Your task to perform on an android device: Open network settings Image 0: 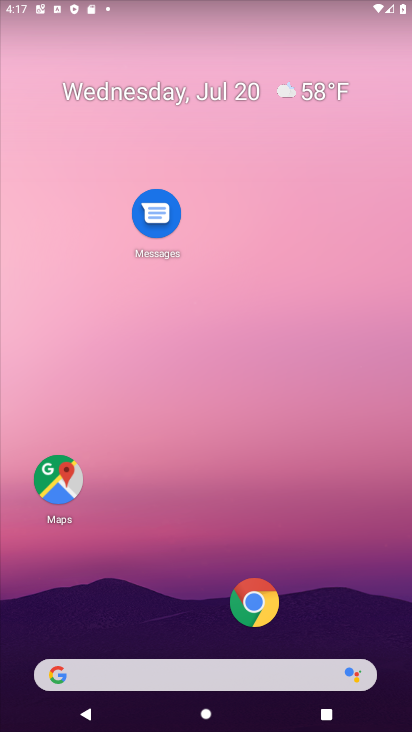
Step 0: click (186, 669)
Your task to perform on an android device: Open network settings Image 1: 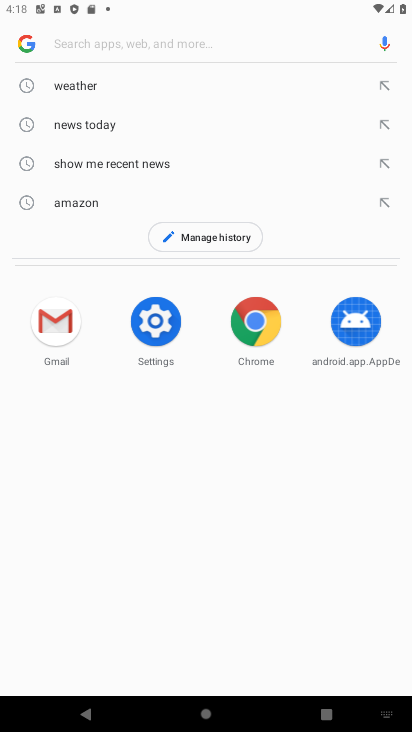
Step 1: press home button
Your task to perform on an android device: Open network settings Image 2: 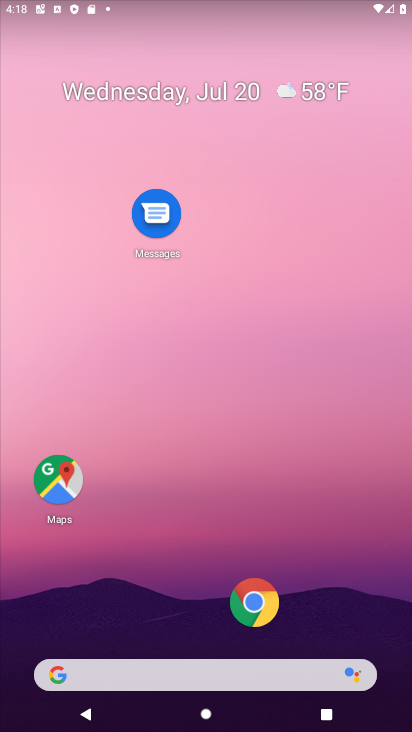
Step 2: drag from (269, 274) to (234, 97)
Your task to perform on an android device: Open network settings Image 3: 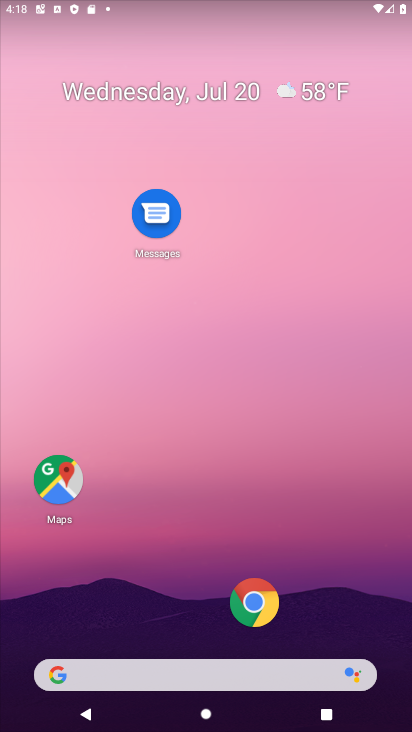
Step 3: drag from (241, 279) to (243, 118)
Your task to perform on an android device: Open network settings Image 4: 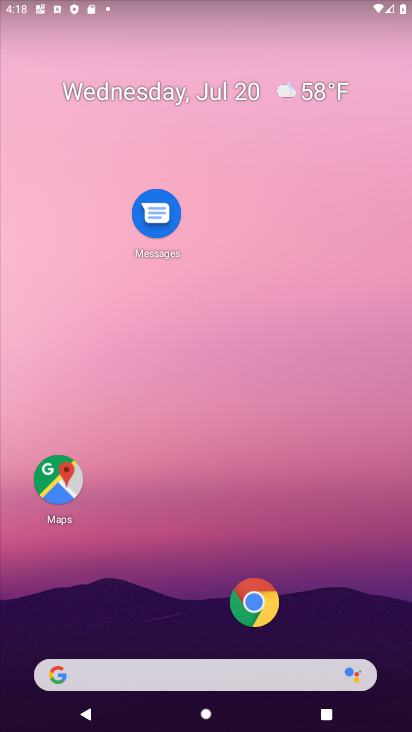
Step 4: drag from (232, 182) to (292, 218)
Your task to perform on an android device: Open network settings Image 5: 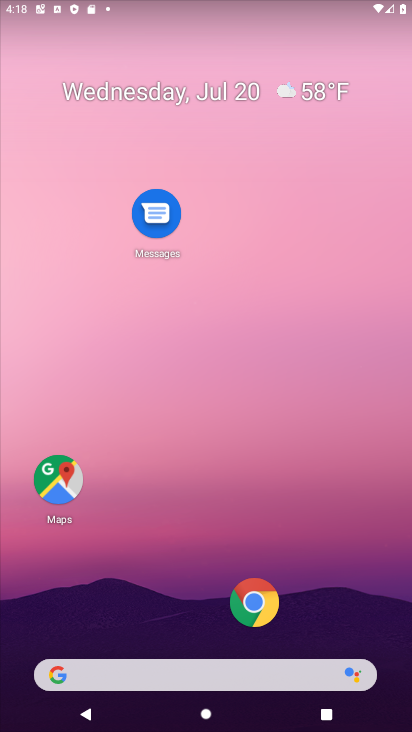
Step 5: drag from (210, 572) to (288, 78)
Your task to perform on an android device: Open network settings Image 6: 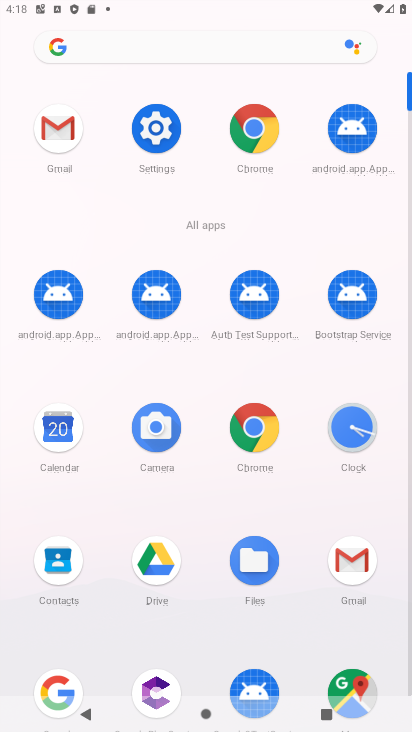
Step 6: click (158, 123)
Your task to perform on an android device: Open network settings Image 7: 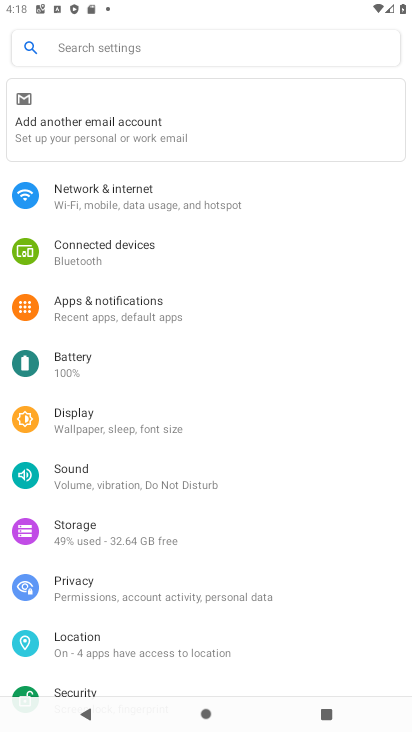
Step 7: click (137, 208)
Your task to perform on an android device: Open network settings Image 8: 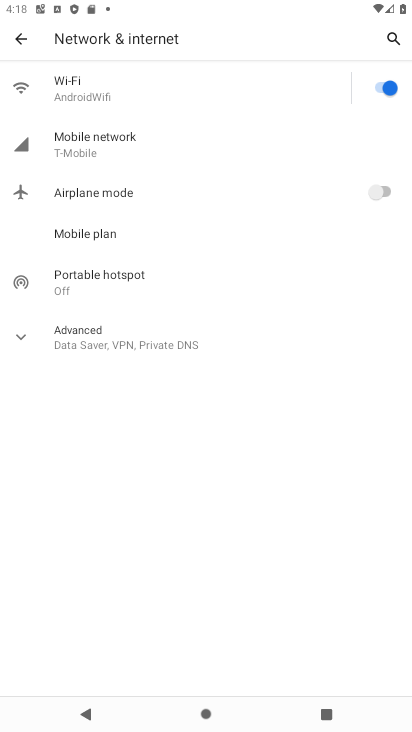
Step 8: task complete